Your task to perform on an android device: uninstall "PUBG MOBILE" Image 0: 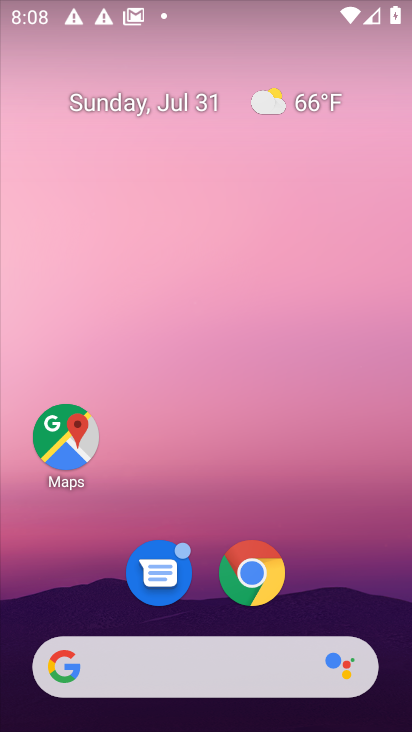
Step 0: press home button
Your task to perform on an android device: uninstall "PUBG MOBILE" Image 1: 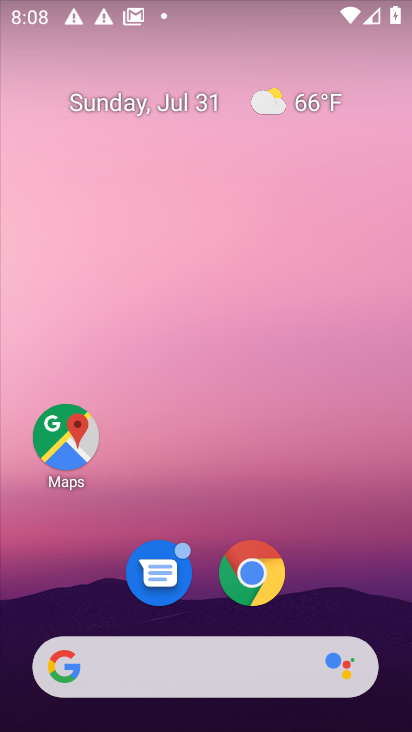
Step 1: drag from (220, 608) to (49, 8)
Your task to perform on an android device: uninstall "PUBG MOBILE" Image 2: 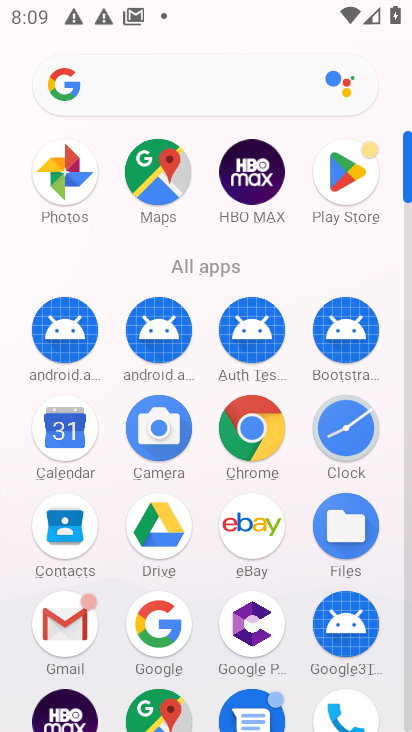
Step 2: click (336, 192)
Your task to perform on an android device: uninstall "PUBG MOBILE" Image 3: 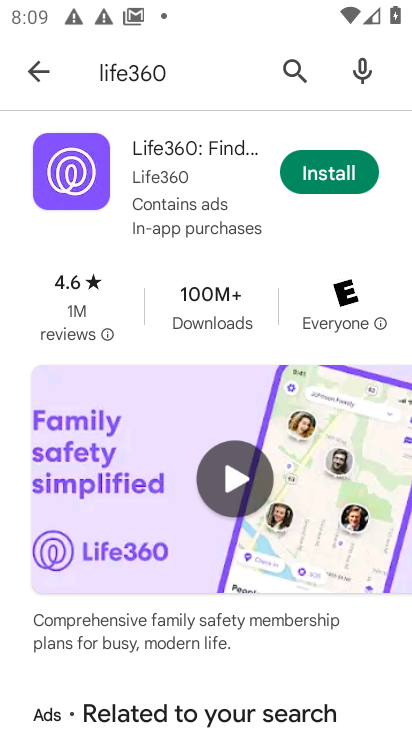
Step 3: click (129, 76)
Your task to perform on an android device: uninstall "PUBG MOBILE" Image 4: 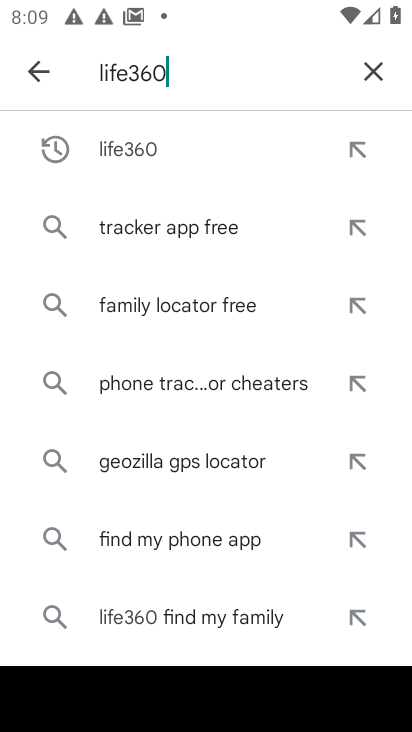
Step 4: click (382, 57)
Your task to perform on an android device: uninstall "PUBG MOBILE" Image 5: 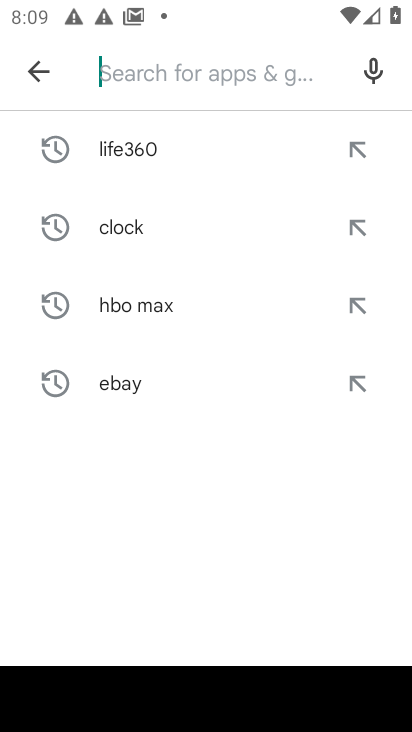
Step 5: type "Pubg"
Your task to perform on an android device: uninstall "PUBG MOBILE" Image 6: 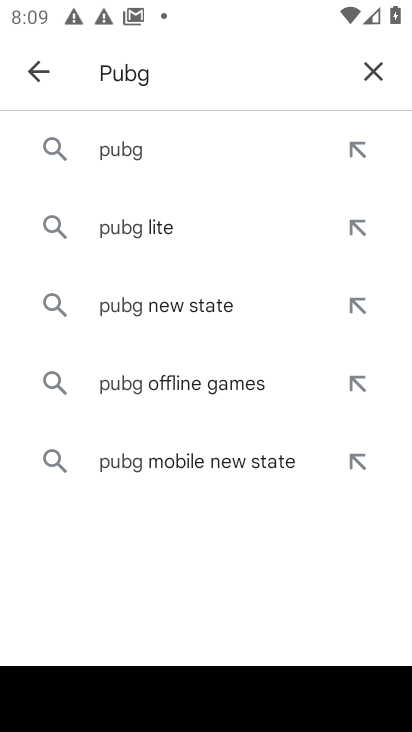
Step 6: click (98, 155)
Your task to perform on an android device: uninstall "PUBG MOBILE" Image 7: 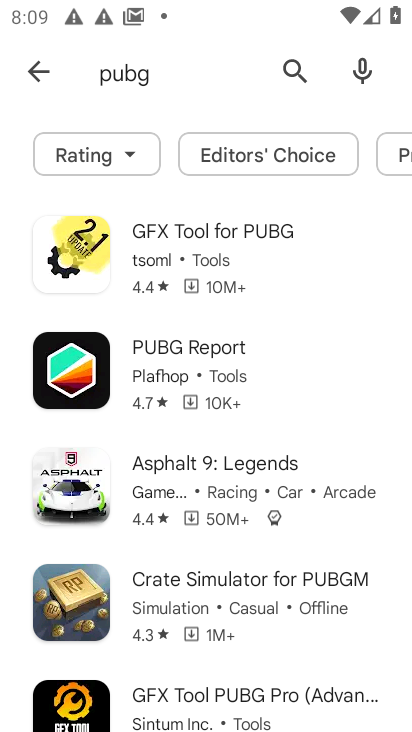
Step 7: click (195, 367)
Your task to perform on an android device: uninstall "PUBG MOBILE" Image 8: 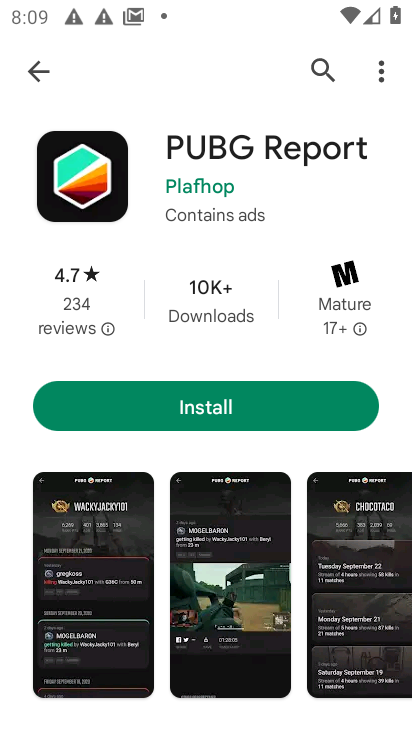
Step 8: task complete